Your task to perform on an android device: refresh tabs in the chrome app Image 0: 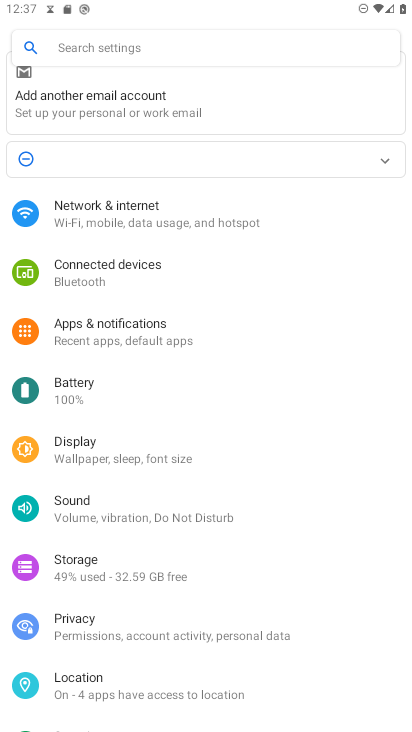
Step 0: press back button
Your task to perform on an android device: refresh tabs in the chrome app Image 1: 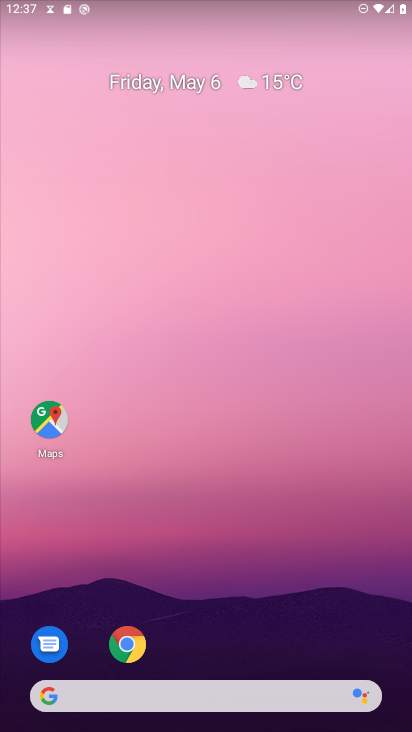
Step 1: drag from (235, 451) to (176, 0)
Your task to perform on an android device: refresh tabs in the chrome app Image 2: 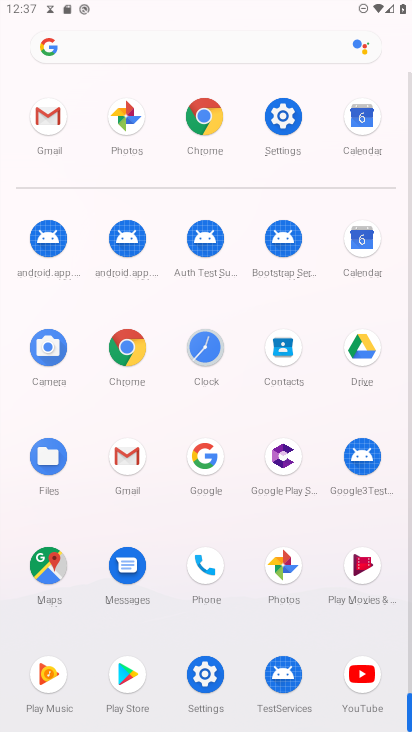
Step 2: click (202, 116)
Your task to perform on an android device: refresh tabs in the chrome app Image 3: 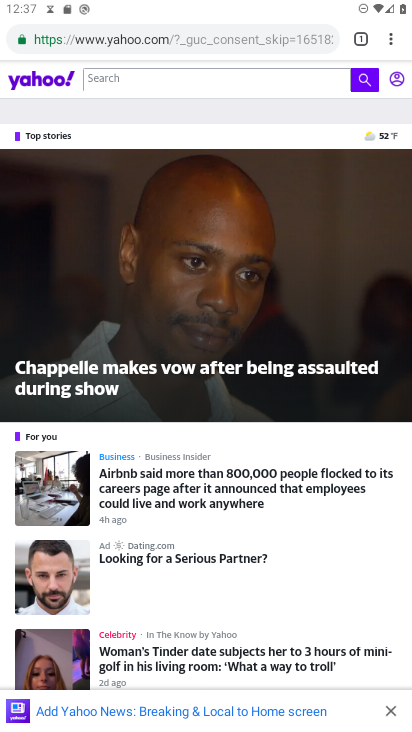
Step 3: click (388, 38)
Your task to perform on an android device: refresh tabs in the chrome app Image 4: 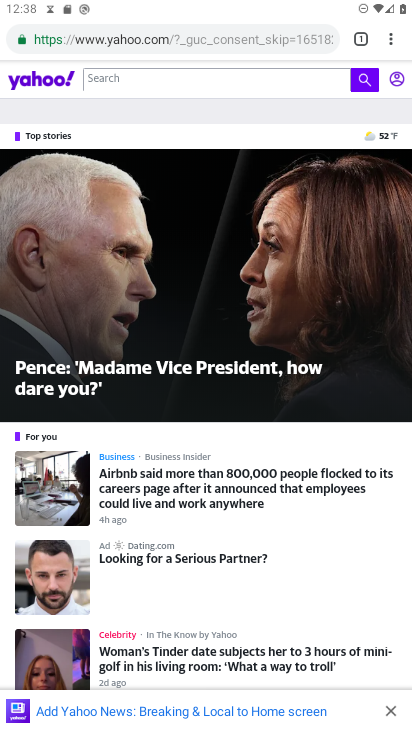
Step 4: task complete